Your task to perform on an android device: Go to accessibility settings Image 0: 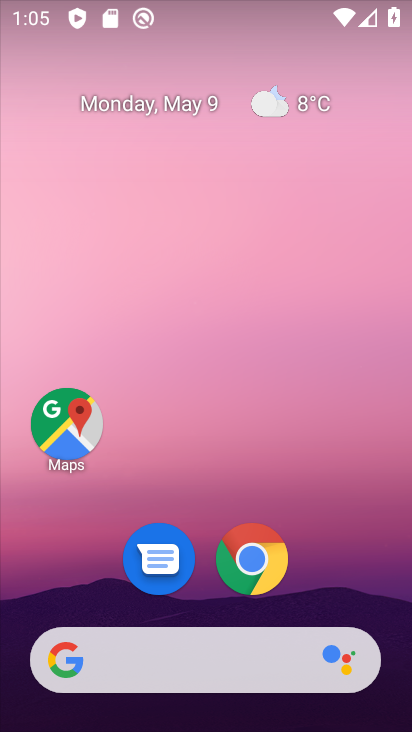
Step 0: drag from (306, 514) to (180, 34)
Your task to perform on an android device: Go to accessibility settings Image 1: 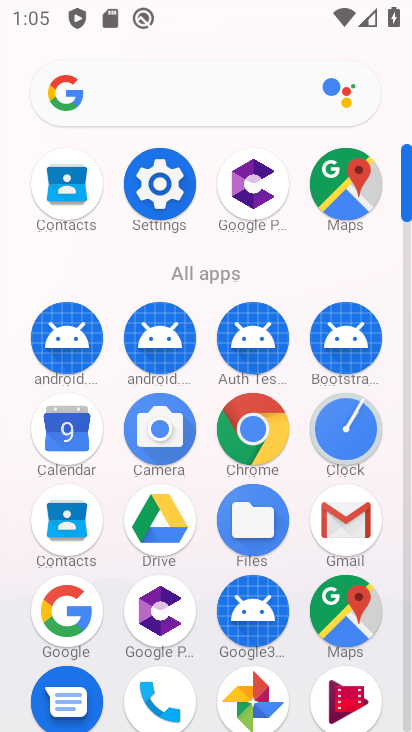
Step 1: click (164, 186)
Your task to perform on an android device: Go to accessibility settings Image 2: 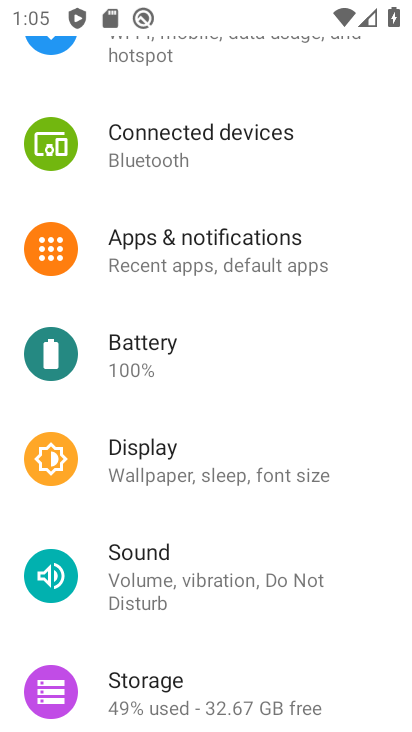
Step 2: drag from (244, 532) to (181, 198)
Your task to perform on an android device: Go to accessibility settings Image 3: 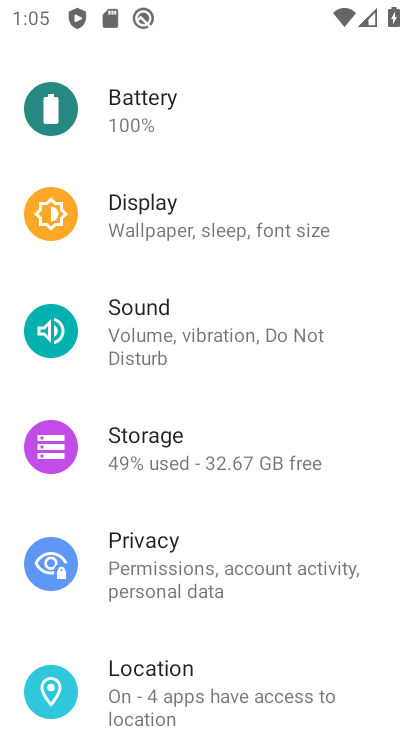
Step 3: drag from (209, 548) to (136, 107)
Your task to perform on an android device: Go to accessibility settings Image 4: 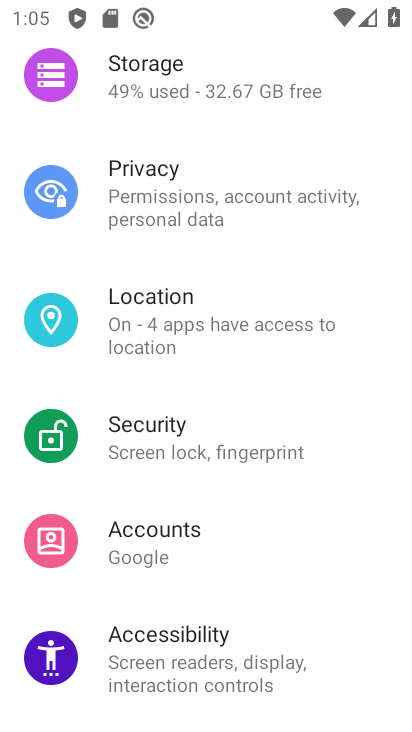
Step 4: click (167, 643)
Your task to perform on an android device: Go to accessibility settings Image 5: 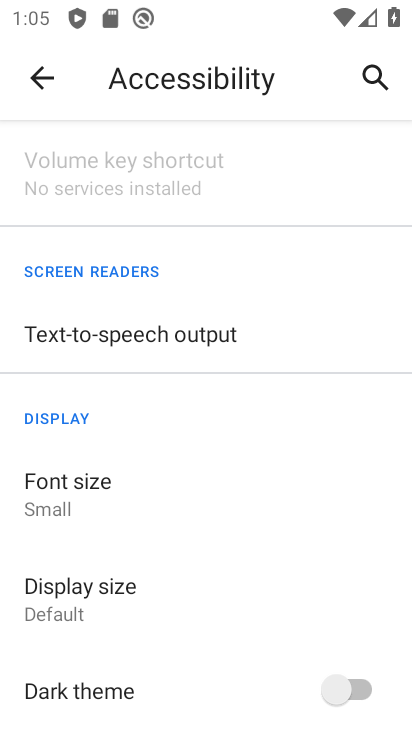
Step 5: task complete